Your task to perform on an android device: manage bookmarks in the chrome app Image 0: 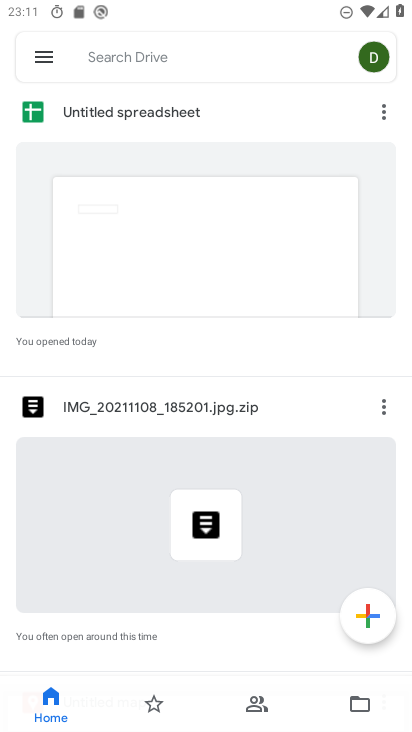
Step 0: press home button
Your task to perform on an android device: manage bookmarks in the chrome app Image 1: 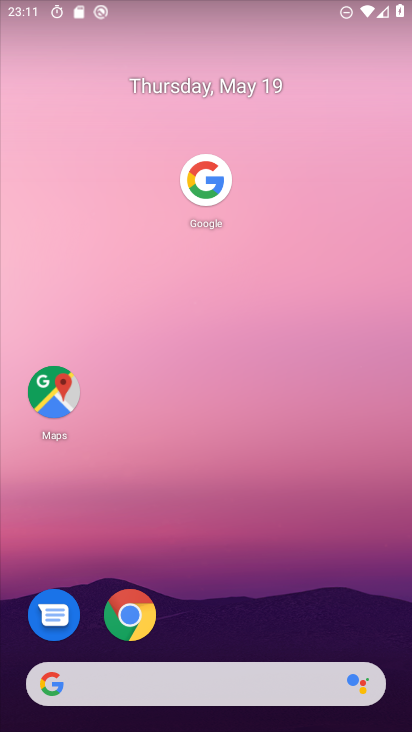
Step 1: click (126, 615)
Your task to perform on an android device: manage bookmarks in the chrome app Image 2: 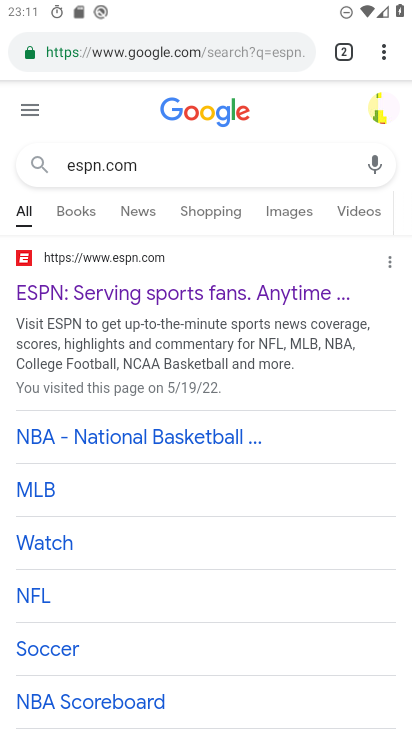
Step 2: click (374, 48)
Your task to perform on an android device: manage bookmarks in the chrome app Image 3: 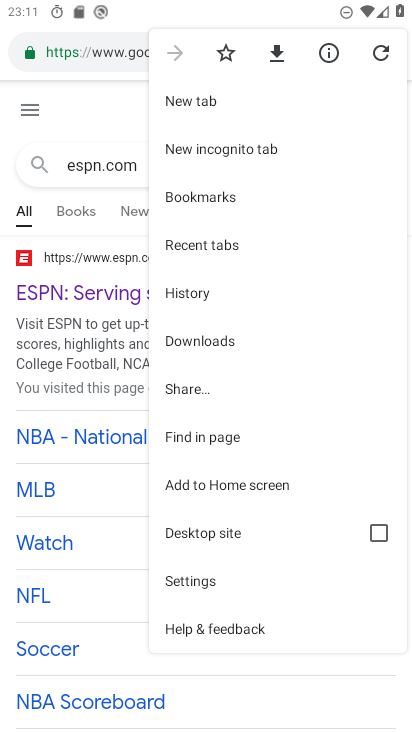
Step 3: click (227, 201)
Your task to perform on an android device: manage bookmarks in the chrome app Image 4: 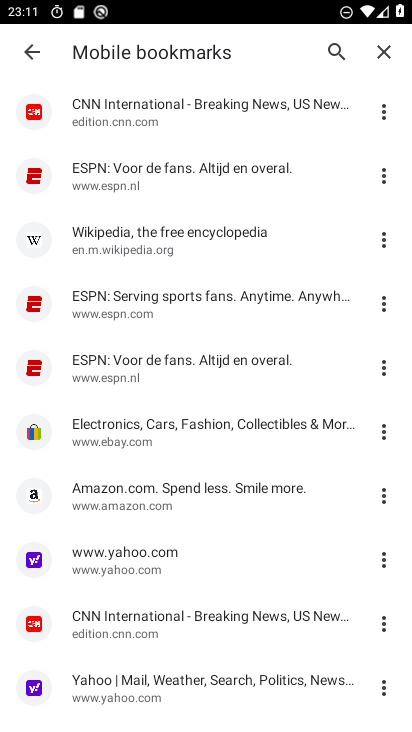
Step 4: click (378, 171)
Your task to perform on an android device: manage bookmarks in the chrome app Image 5: 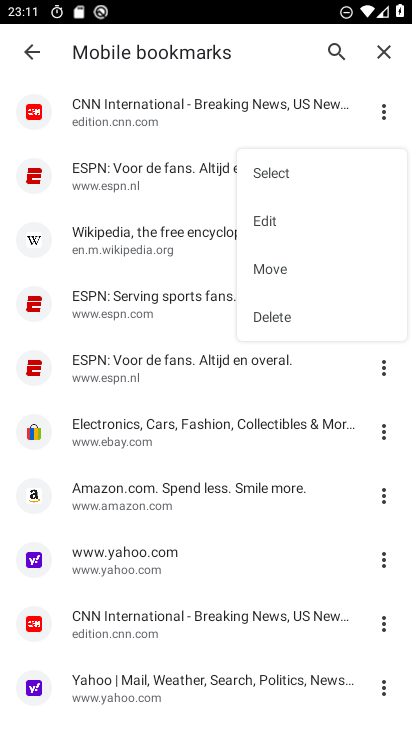
Step 5: click (292, 317)
Your task to perform on an android device: manage bookmarks in the chrome app Image 6: 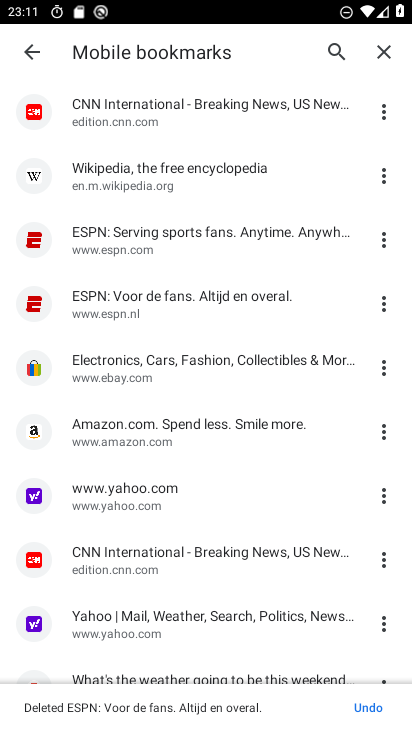
Step 6: task complete